Your task to perform on an android device: Open calendar and show me the third week of next month Image 0: 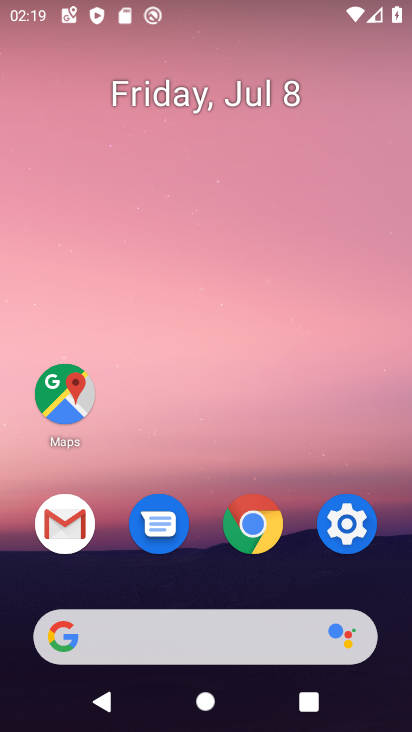
Step 0: drag from (224, 594) to (160, 66)
Your task to perform on an android device: Open calendar and show me the third week of next month Image 1: 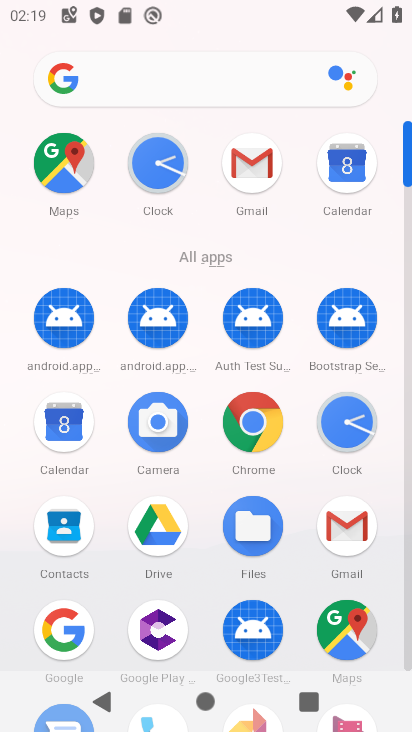
Step 1: click (78, 427)
Your task to perform on an android device: Open calendar and show me the third week of next month Image 2: 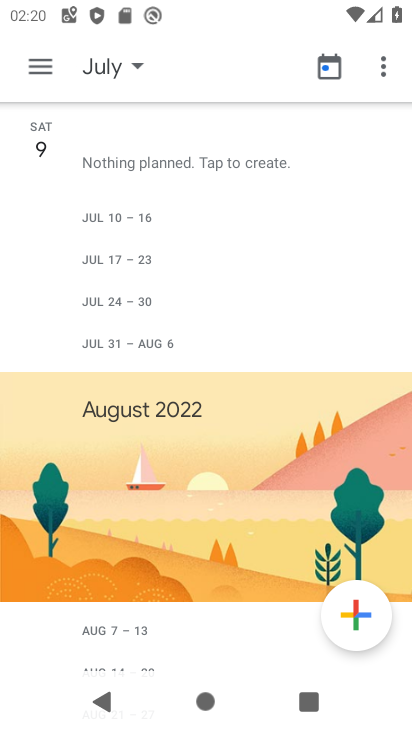
Step 2: click (33, 98)
Your task to perform on an android device: Open calendar and show me the third week of next month Image 3: 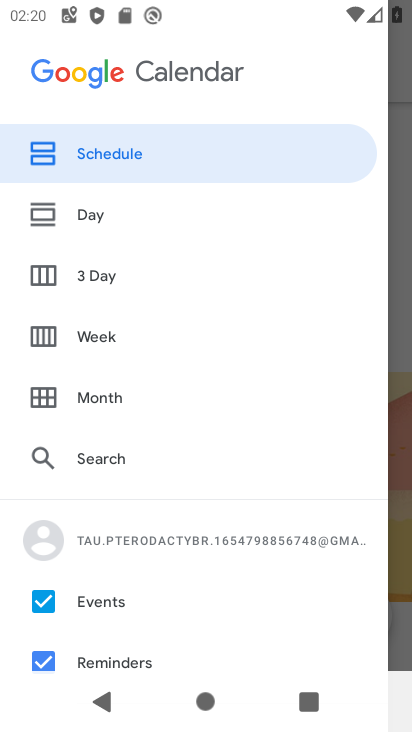
Step 3: click (87, 397)
Your task to perform on an android device: Open calendar and show me the third week of next month Image 4: 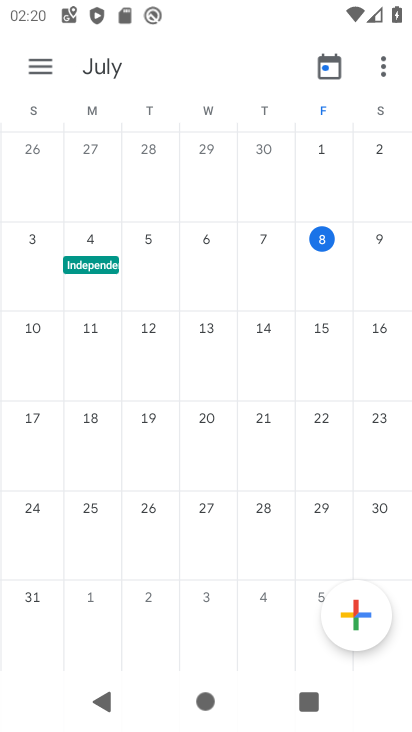
Step 4: drag from (269, 329) to (0, 413)
Your task to perform on an android device: Open calendar and show me the third week of next month Image 5: 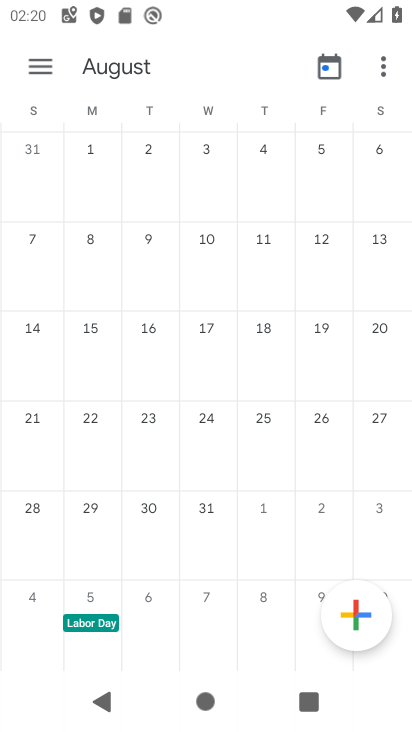
Step 5: click (81, 352)
Your task to perform on an android device: Open calendar and show me the third week of next month Image 6: 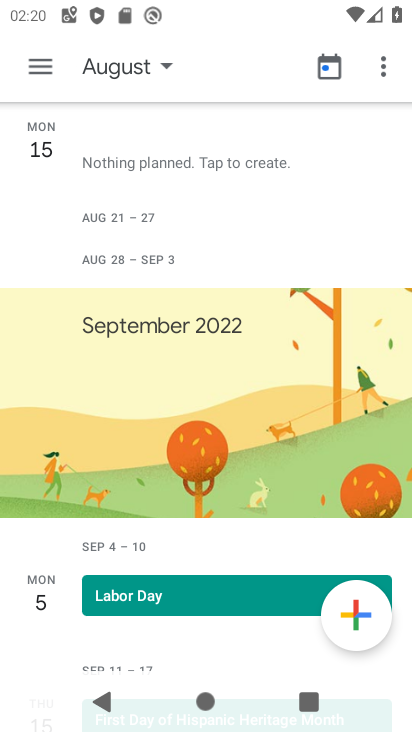
Step 6: task complete